Your task to perform on an android device: open chrome and create a bookmark for the current page Image 0: 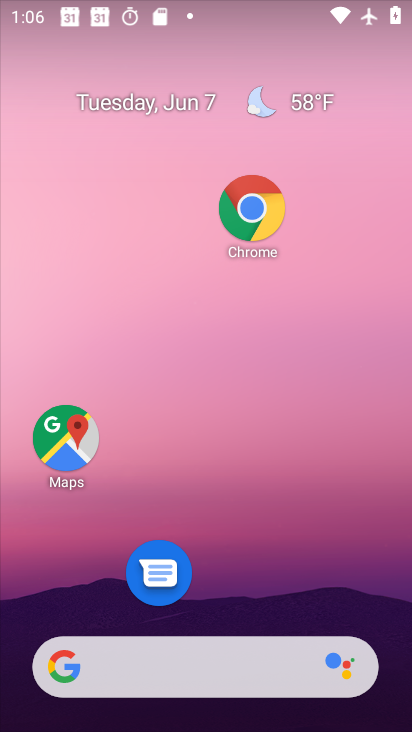
Step 0: click (262, 244)
Your task to perform on an android device: open chrome and create a bookmark for the current page Image 1: 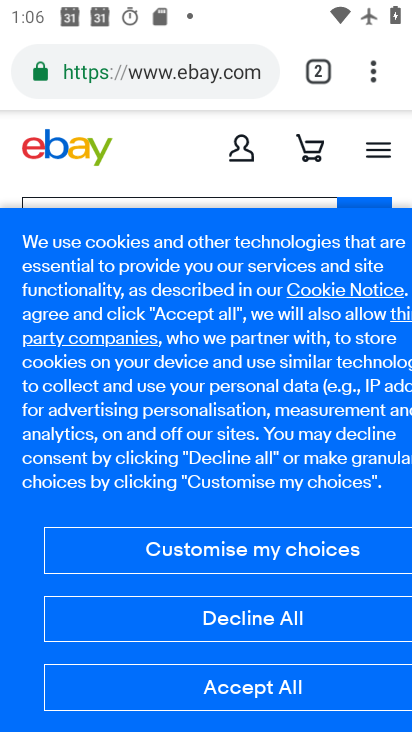
Step 1: click (364, 71)
Your task to perform on an android device: open chrome and create a bookmark for the current page Image 2: 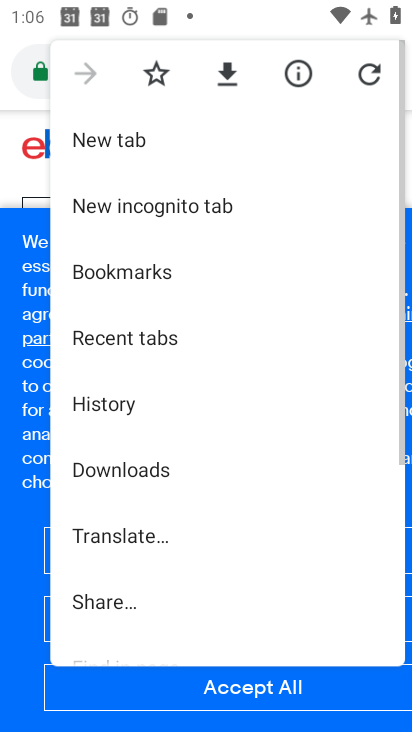
Step 2: click (163, 78)
Your task to perform on an android device: open chrome and create a bookmark for the current page Image 3: 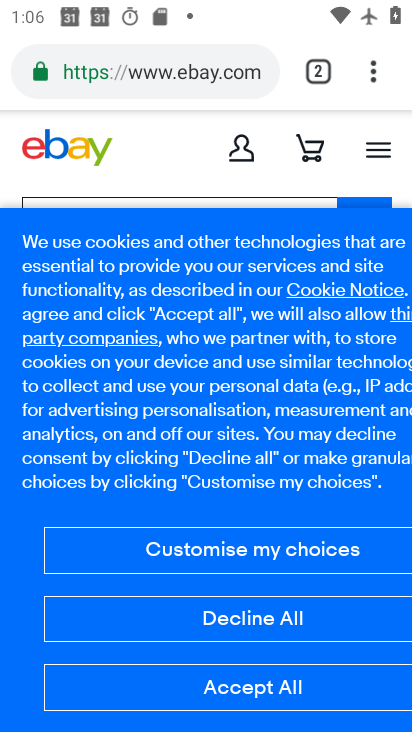
Step 3: task complete